Your task to perform on an android device: turn on data saver in the chrome app Image 0: 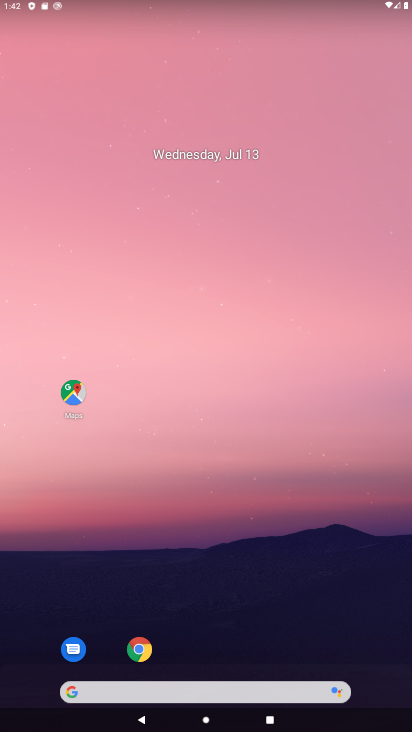
Step 0: click (133, 654)
Your task to perform on an android device: turn on data saver in the chrome app Image 1: 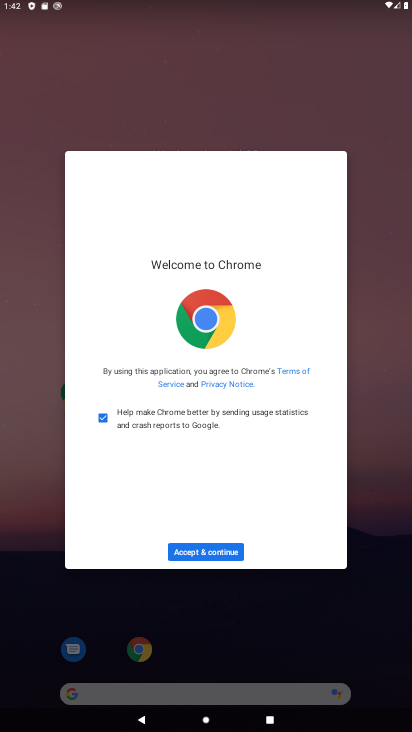
Step 1: click (204, 550)
Your task to perform on an android device: turn on data saver in the chrome app Image 2: 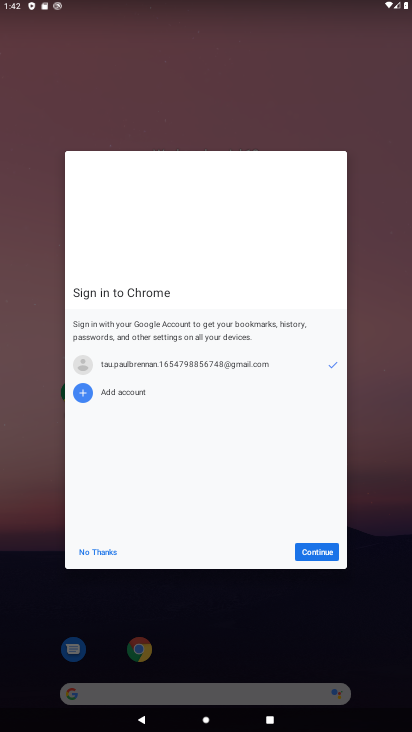
Step 2: click (336, 566)
Your task to perform on an android device: turn on data saver in the chrome app Image 3: 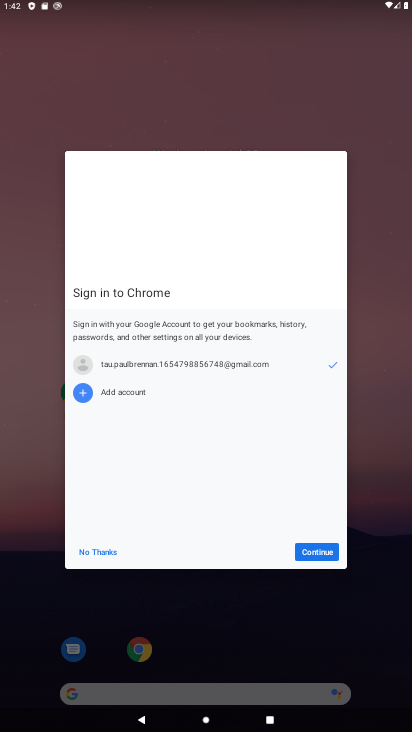
Step 3: click (323, 553)
Your task to perform on an android device: turn on data saver in the chrome app Image 4: 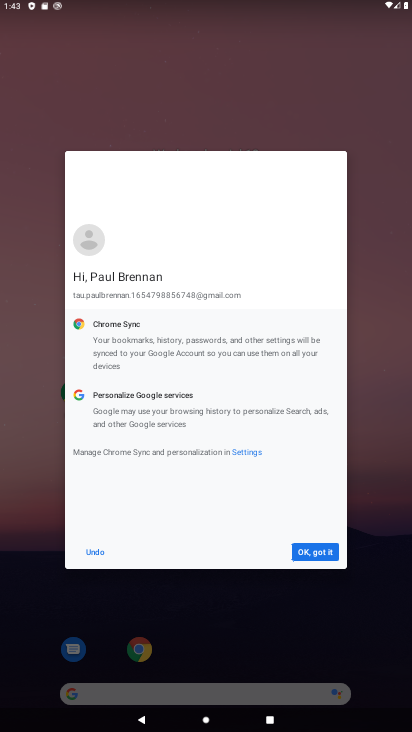
Step 4: click (315, 557)
Your task to perform on an android device: turn on data saver in the chrome app Image 5: 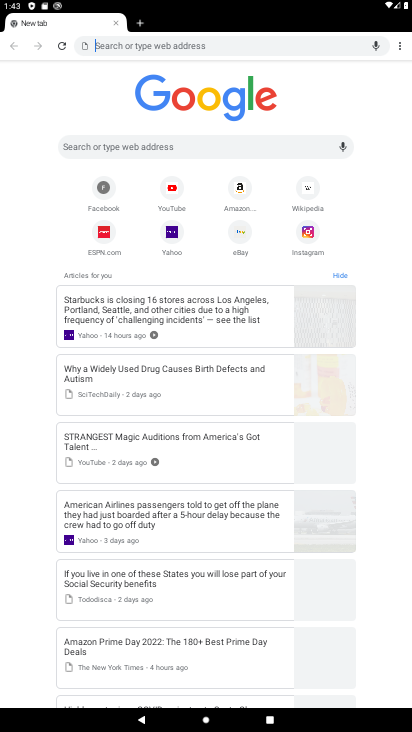
Step 5: click (403, 42)
Your task to perform on an android device: turn on data saver in the chrome app Image 6: 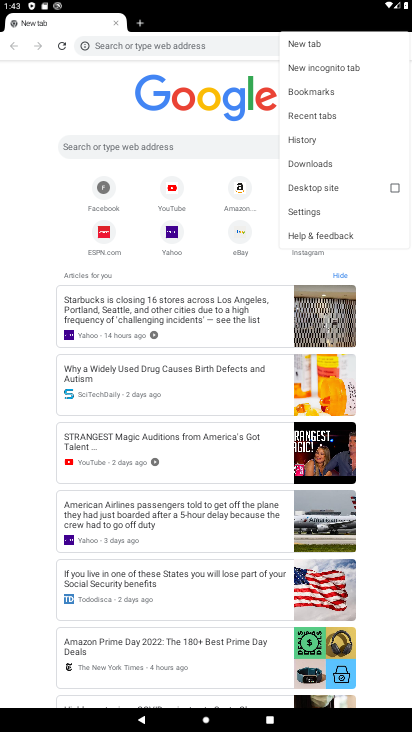
Step 6: click (328, 205)
Your task to perform on an android device: turn on data saver in the chrome app Image 7: 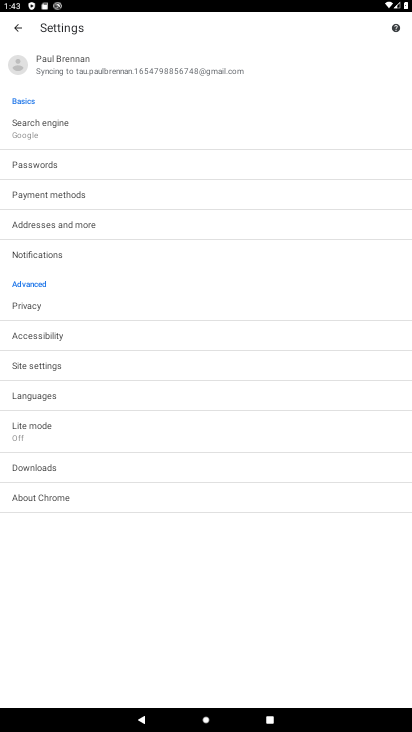
Step 7: click (123, 425)
Your task to perform on an android device: turn on data saver in the chrome app Image 8: 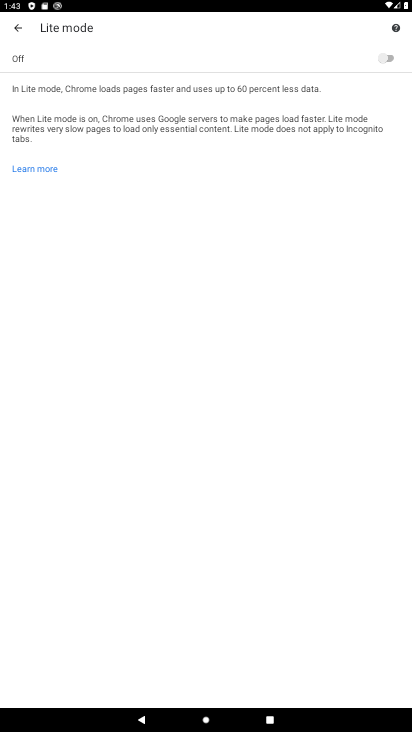
Step 8: click (396, 62)
Your task to perform on an android device: turn on data saver in the chrome app Image 9: 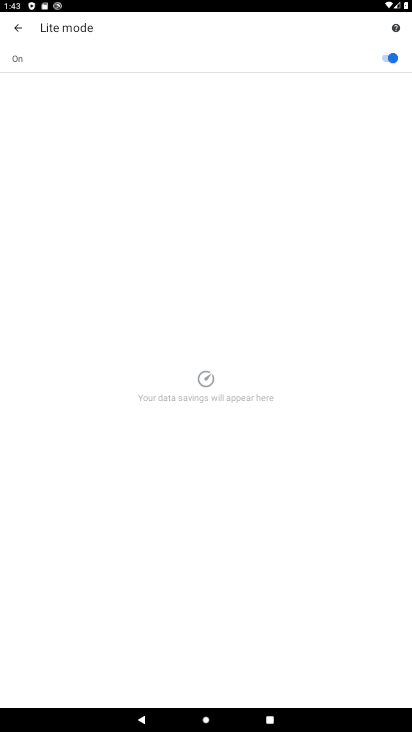
Step 9: task complete